Your task to perform on an android device: turn on data saver in the chrome app Image 0: 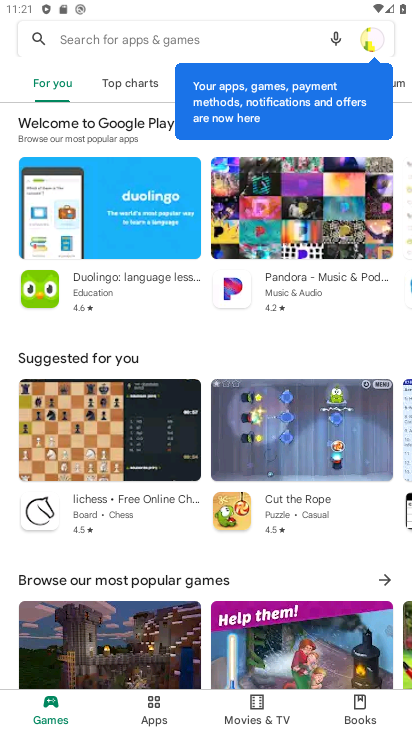
Step 0: press home button
Your task to perform on an android device: turn on data saver in the chrome app Image 1: 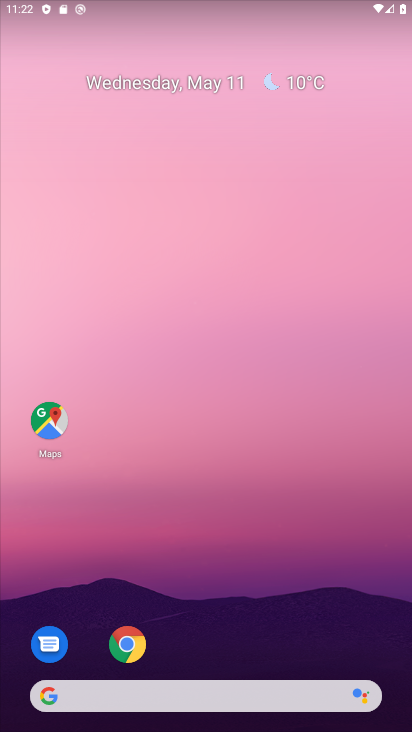
Step 1: click (127, 640)
Your task to perform on an android device: turn on data saver in the chrome app Image 2: 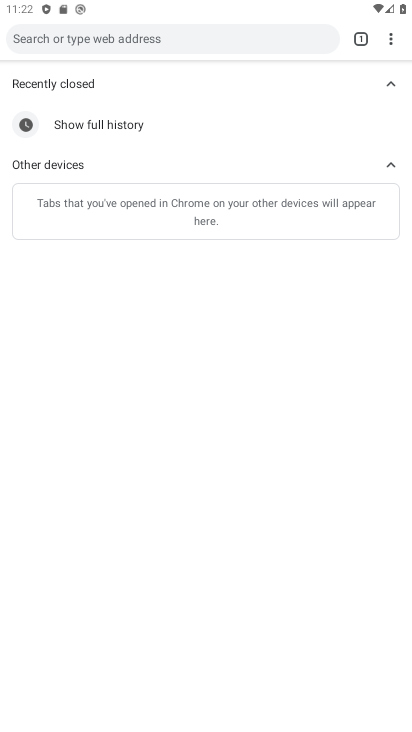
Step 2: drag from (393, 36) to (277, 312)
Your task to perform on an android device: turn on data saver in the chrome app Image 3: 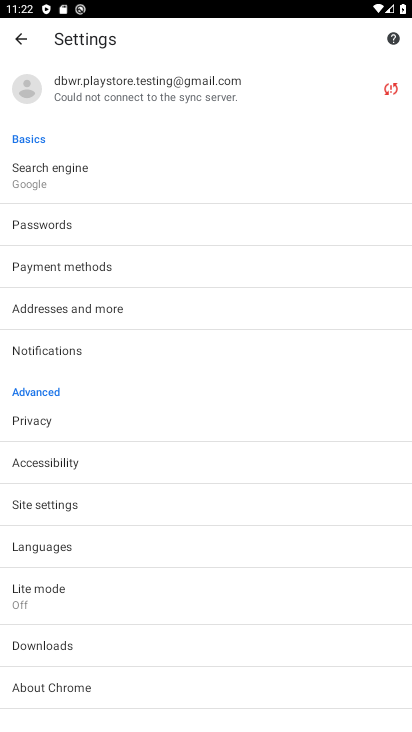
Step 3: click (42, 585)
Your task to perform on an android device: turn on data saver in the chrome app Image 4: 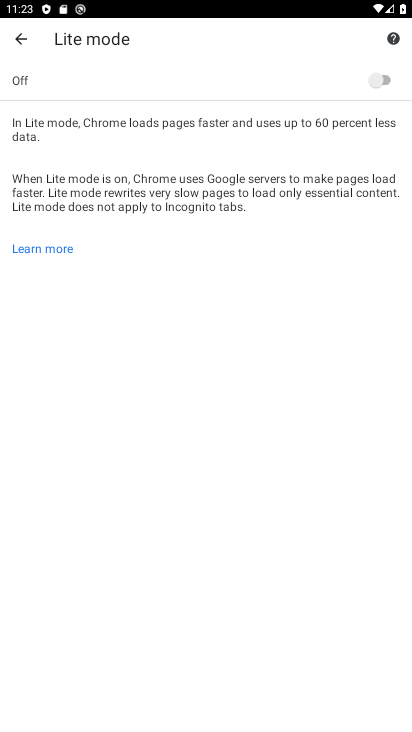
Step 4: click (373, 78)
Your task to perform on an android device: turn on data saver in the chrome app Image 5: 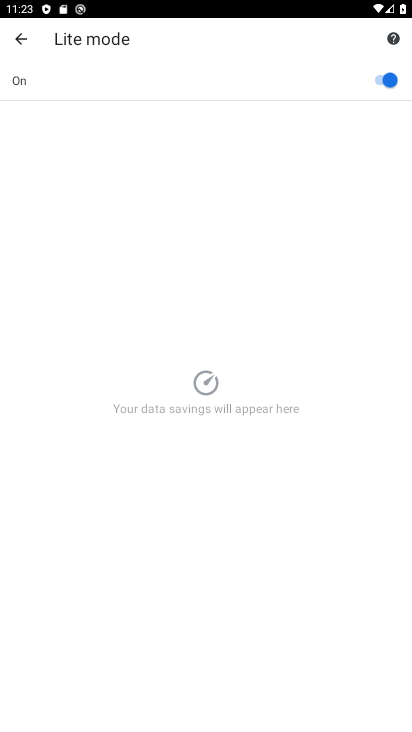
Step 5: task complete